Your task to perform on an android device: turn notification dots on Image 0: 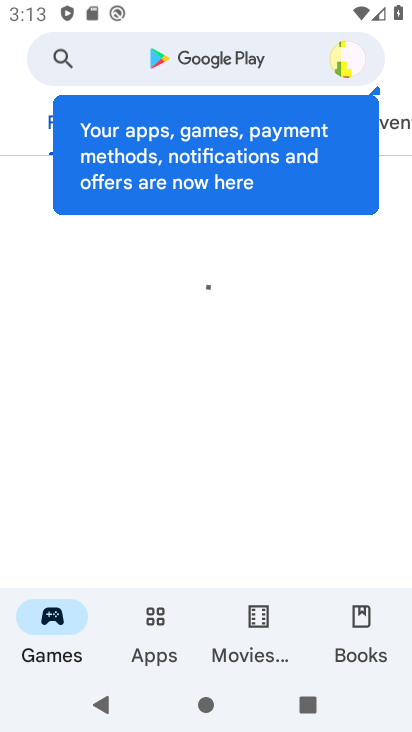
Step 0: press home button
Your task to perform on an android device: turn notification dots on Image 1: 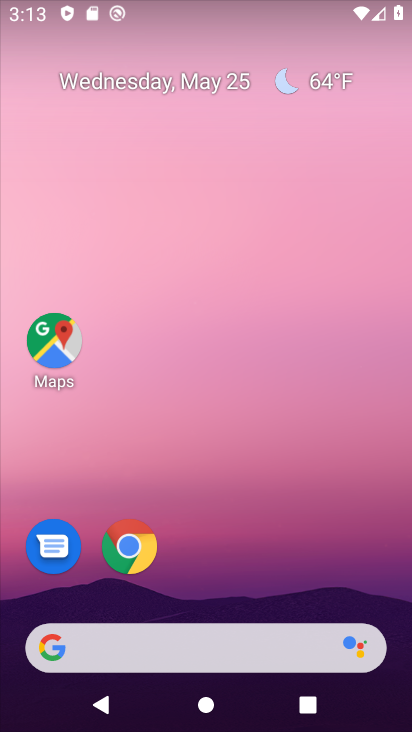
Step 1: drag from (222, 603) to (44, 117)
Your task to perform on an android device: turn notification dots on Image 2: 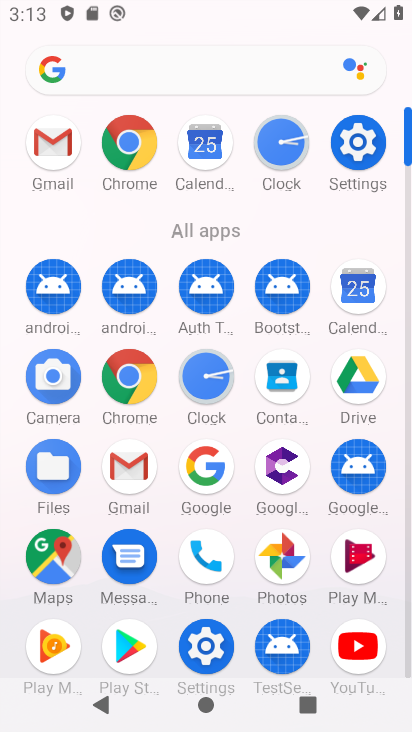
Step 2: click (368, 148)
Your task to perform on an android device: turn notification dots on Image 3: 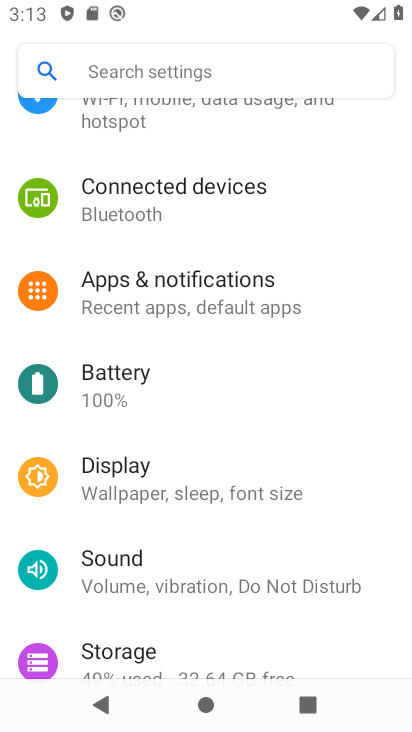
Step 3: click (268, 296)
Your task to perform on an android device: turn notification dots on Image 4: 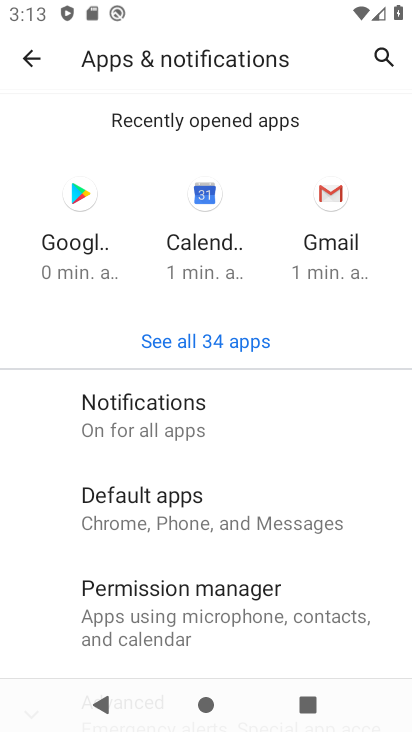
Step 4: click (170, 395)
Your task to perform on an android device: turn notification dots on Image 5: 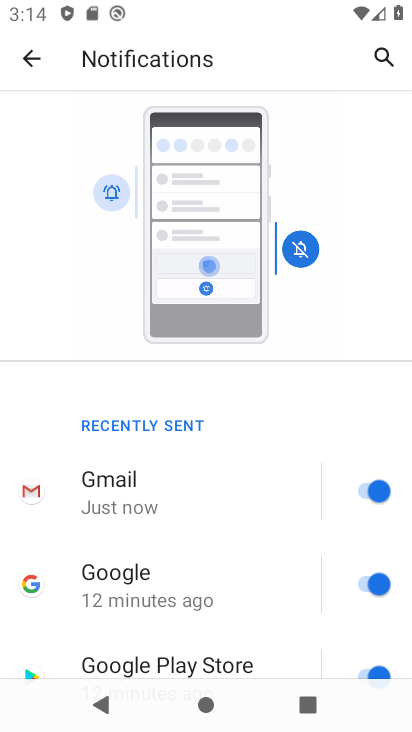
Step 5: drag from (102, 618) to (98, 164)
Your task to perform on an android device: turn notification dots on Image 6: 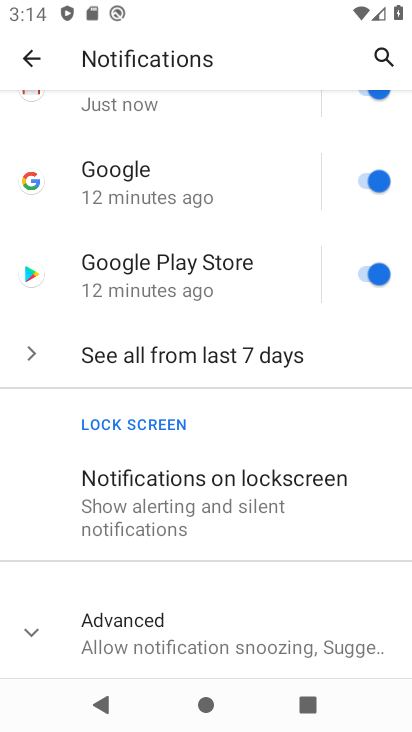
Step 6: click (122, 641)
Your task to perform on an android device: turn notification dots on Image 7: 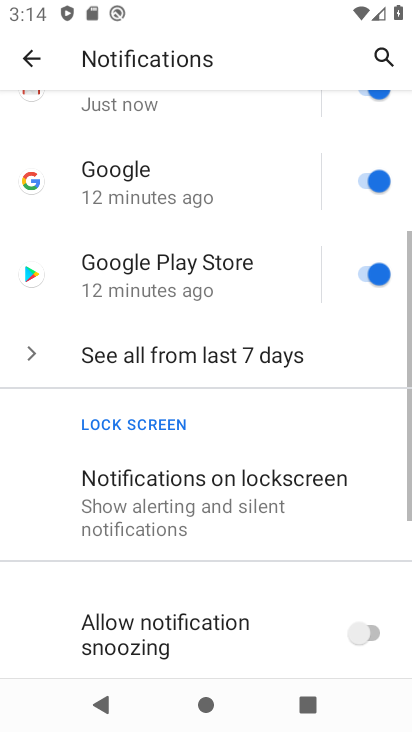
Step 7: drag from (122, 641) to (150, 274)
Your task to perform on an android device: turn notification dots on Image 8: 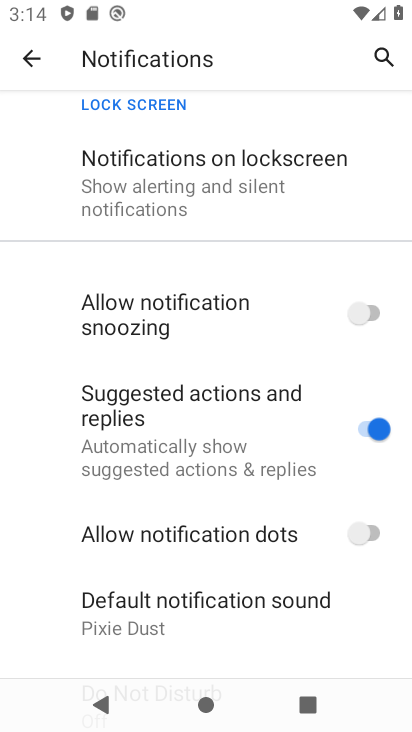
Step 8: click (352, 535)
Your task to perform on an android device: turn notification dots on Image 9: 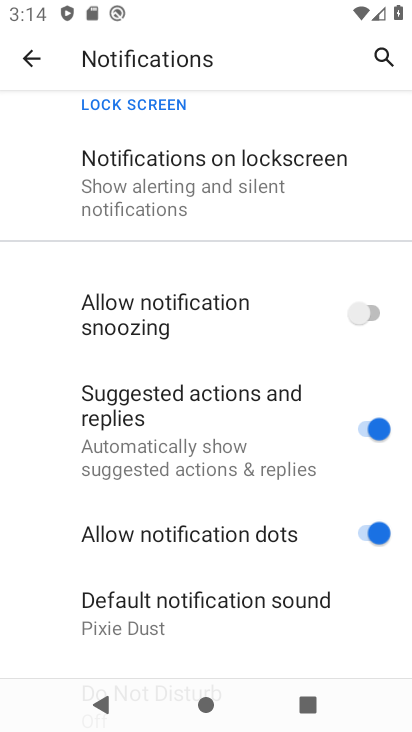
Step 9: task complete